Your task to perform on an android device: set an alarm Image 0: 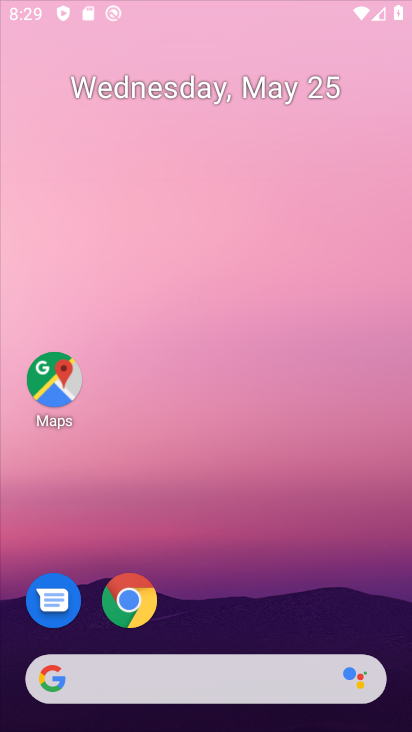
Step 0: press home button
Your task to perform on an android device: set an alarm Image 1: 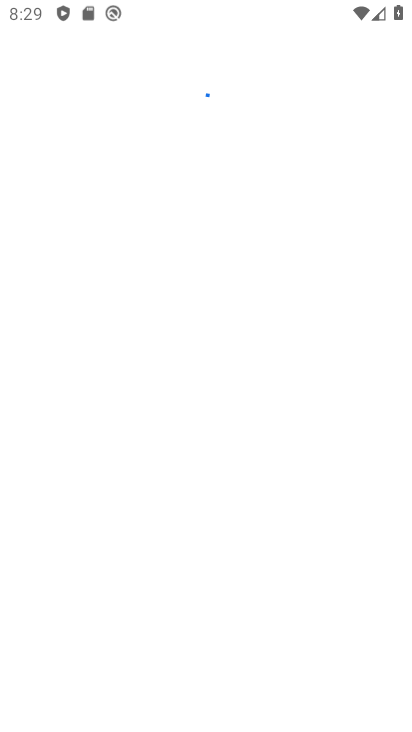
Step 1: drag from (270, 136) to (289, 40)
Your task to perform on an android device: set an alarm Image 2: 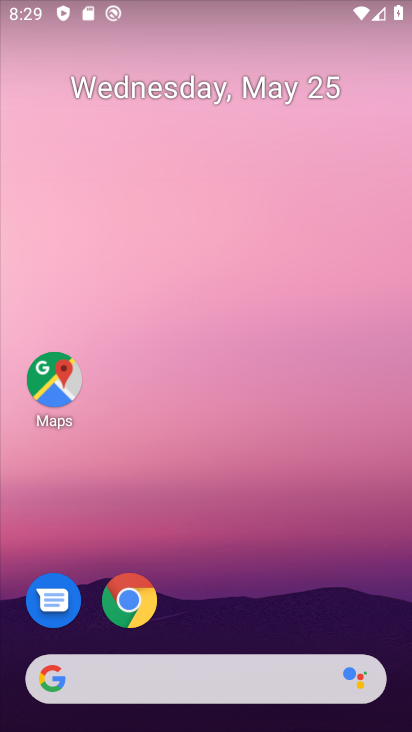
Step 2: drag from (286, 595) to (354, 0)
Your task to perform on an android device: set an alarm Image 3: 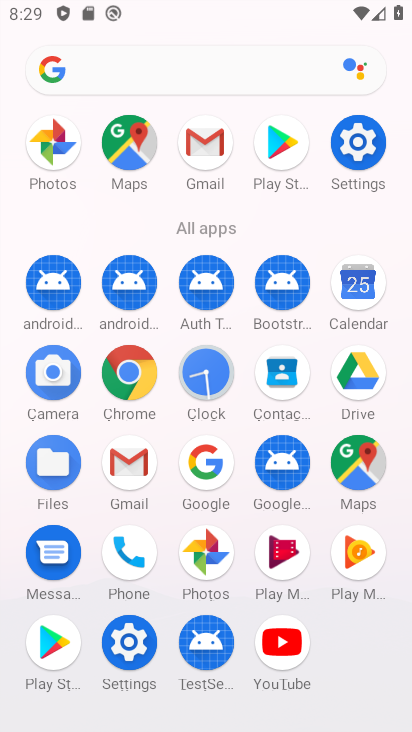
Step 3: click (193, 379)
Your task to perform on an android device: set an alarm Image 4: 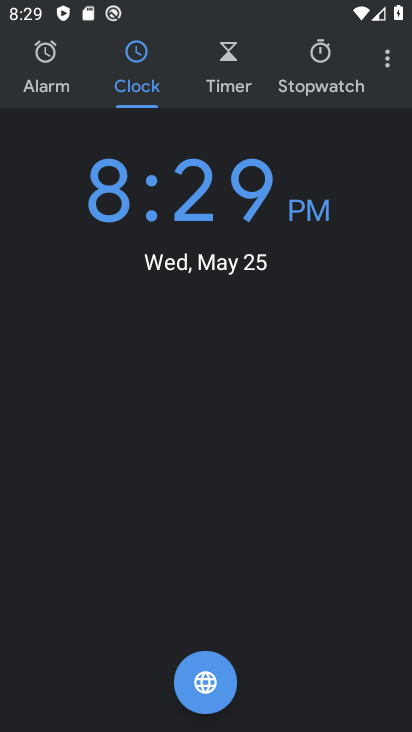
Step 4: click (59, 66)
Your task to perform on an android device: set an alarm Image 5: 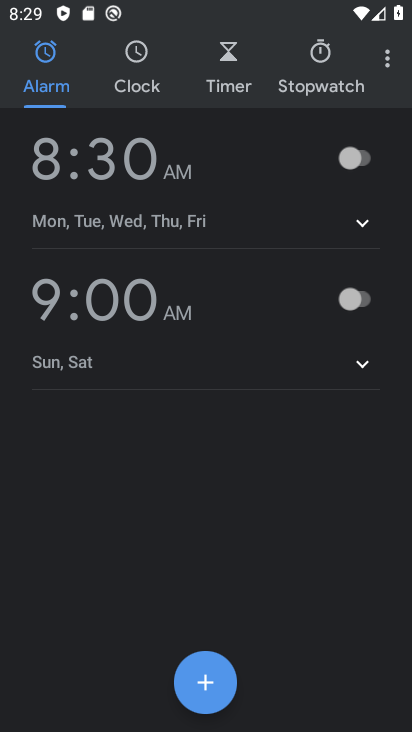
Step 5: click (212, 679)
Your task to perform on an android device: set an alarm Image 6: 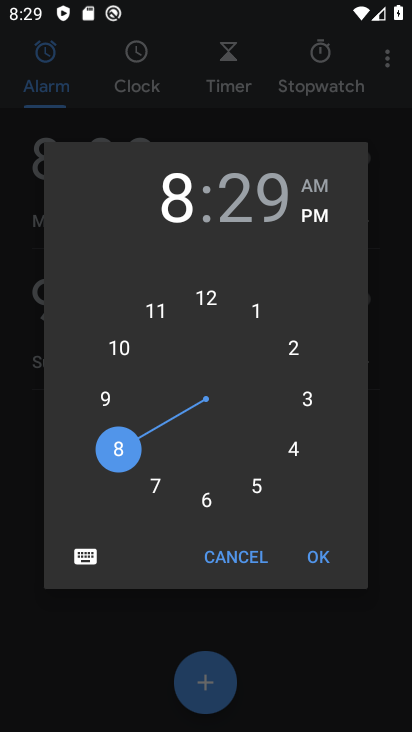
Step 6: click (306, 561)
Your task to perform on an android device: set an alarm Image 7: 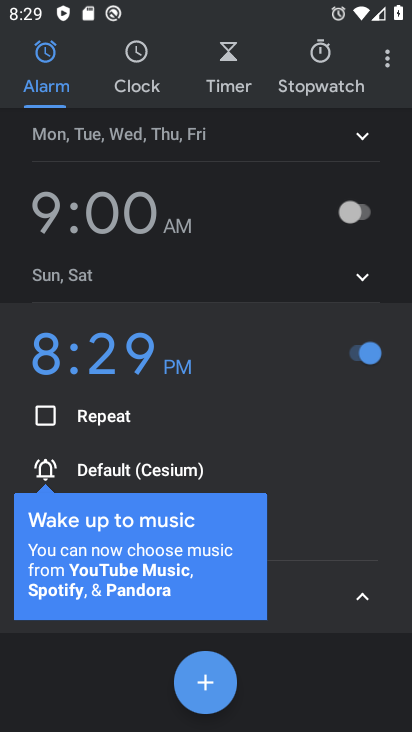
Step 7: click (364, 590)
Your task to perform on an android device: set an alarm Image 8: 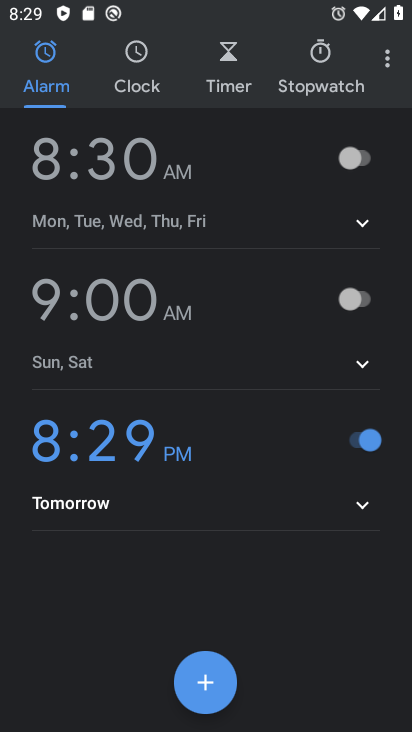
Step 8: task complete